Your task to perform on an android device: Go to ESPN.com Image 0: 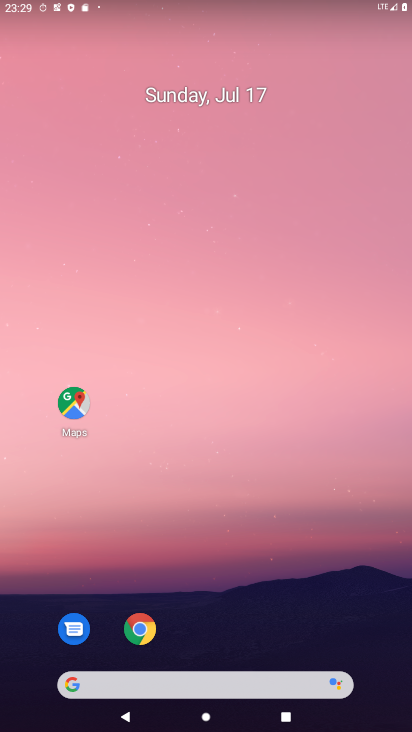
Step 0: click (141, 632)
Your task to perform on an android device: Go to ESPN.com Image 1: 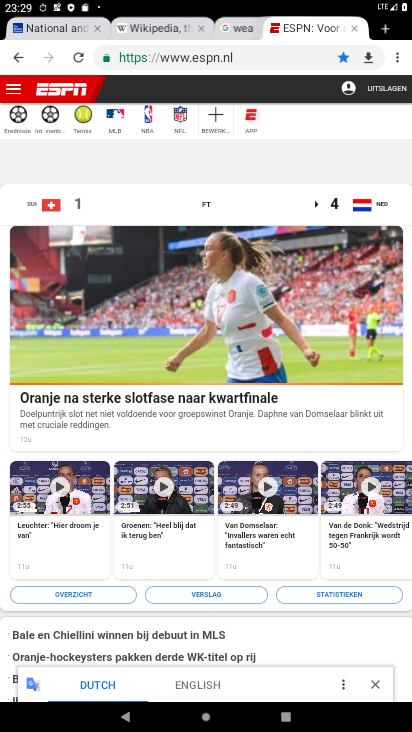
Step 1: task complete